Your task to perform on an android device: What's on my calendar tomorrow? Image 0: 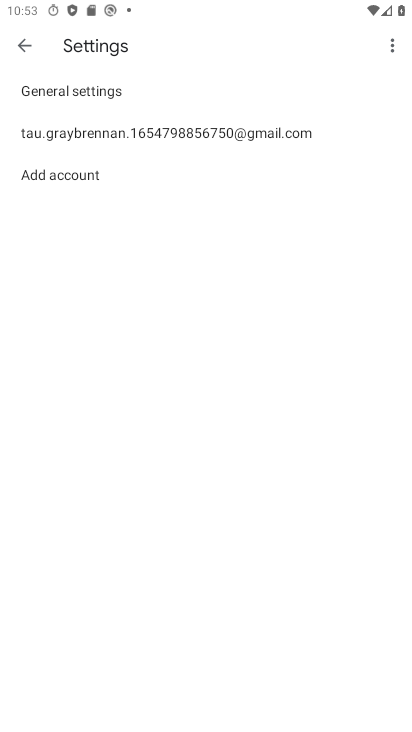
Step 0: press home button
Your task to perform on an android device: What's on my calendar tomorrow? Image 1: 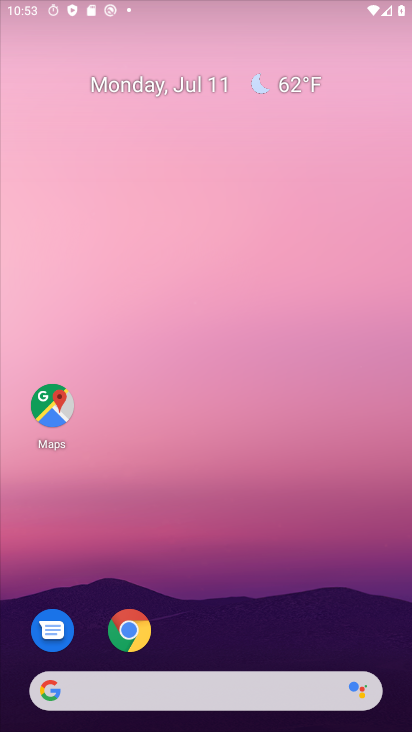
Step 1: drag from (249, 719) to (207, 6)
Your task to perform on an android device: What's on my calendar tomorrow? Image 2: 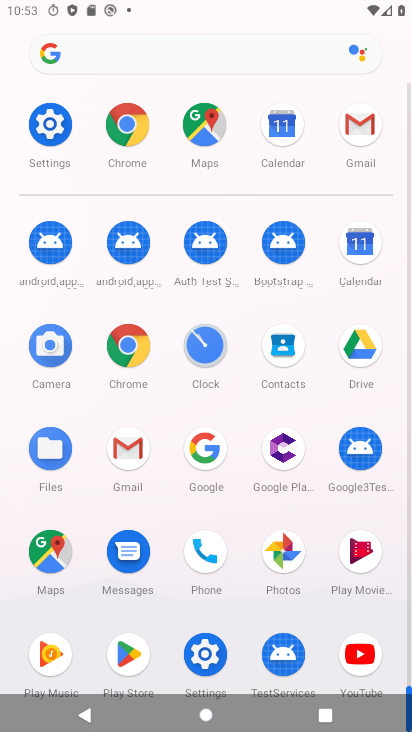
Step 2: click (365, 245)
Your task to perform on an android device: What's on my calendar tomorrow? Image 3: 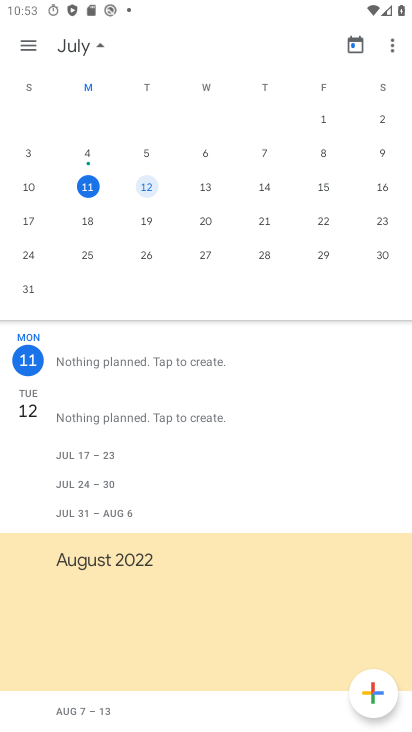
Step 3: click (152, 183)
Your task to perform on an android device: What's on my calendar tomorrow? Image 4: 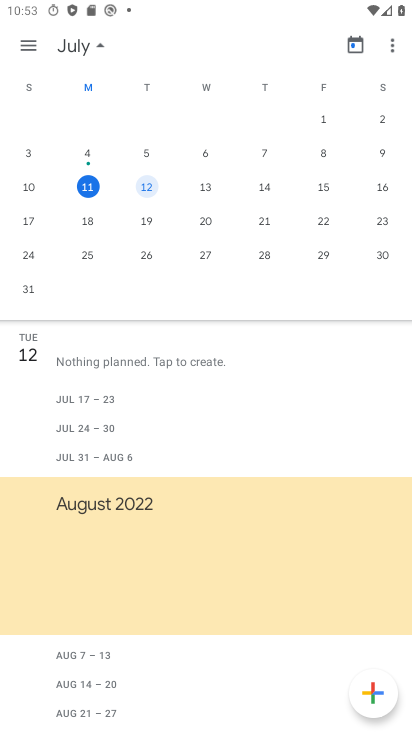
Step 4: task complete